Your task to perform on an android device: Turn off the flashlight Image 0: 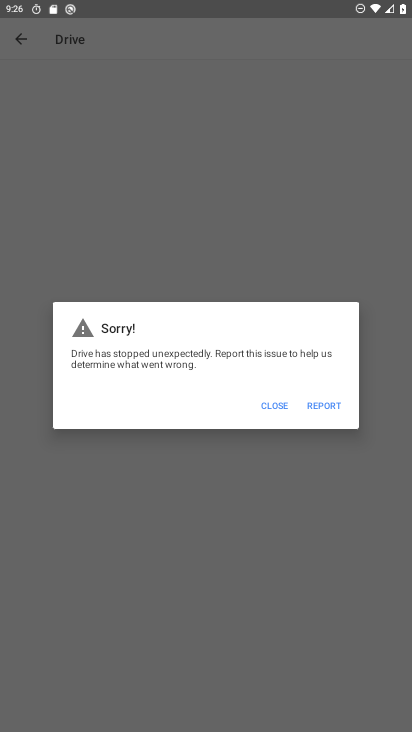
Step 0: press home button
Your task to perform on an android device: Turn off the flashlight Image 1: 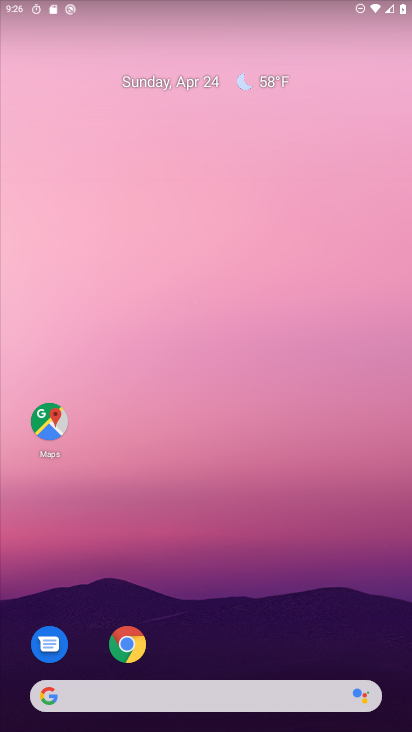
Step 1: drag from (239, 653) to (258, 113)
Your task to perform on an android device: Turn off the flashlight Image 2: 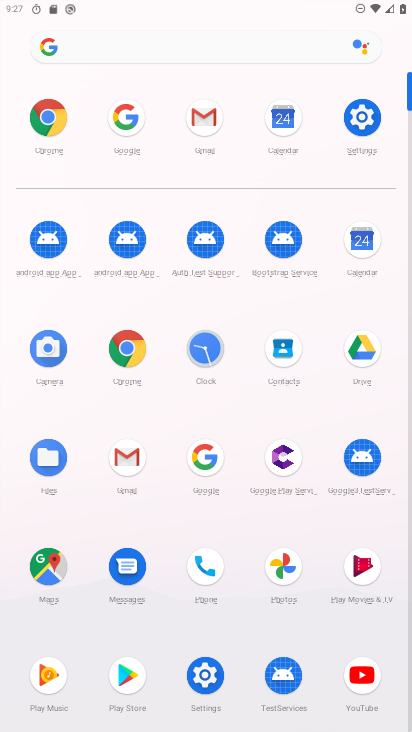
Step 2: drag from (220, 11) to (220, 608)
Your task to perform on an android device: Turn off the flashlight Image 3: 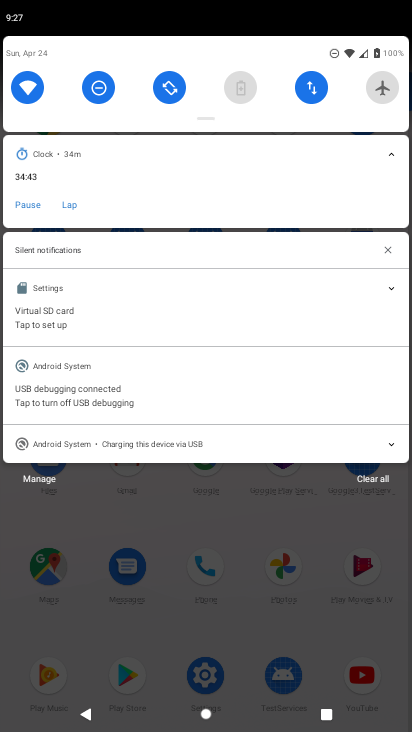
Step 3: click (226, 555)
Your task to perform on an android device: Turn off the flashlight Image 4: 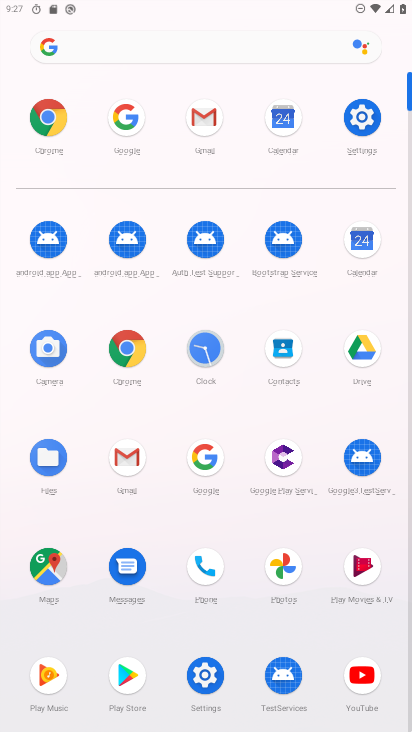
Step 4: click (363, 110)
Your task to perform on an android device: Turn off the flashlight Image 5: 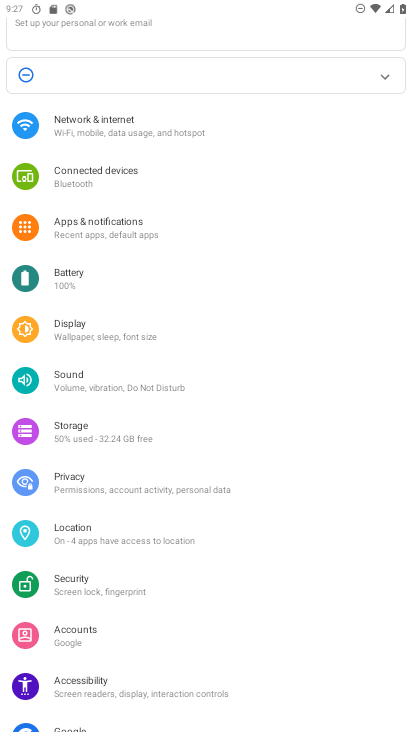
Step 5: drag from (93, 229) to (129, 573)
Your task to perform on an android device: Turn off the flashlight Image 6: 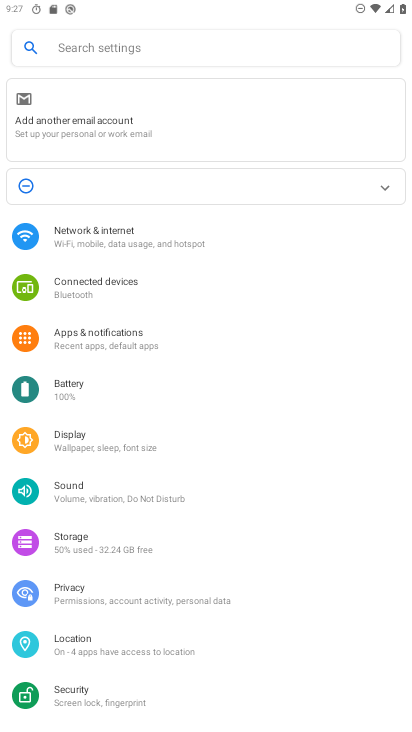
Step 6: click (120, 40)
Your task to perform on an android device: Turn off the flashlight Image 7: 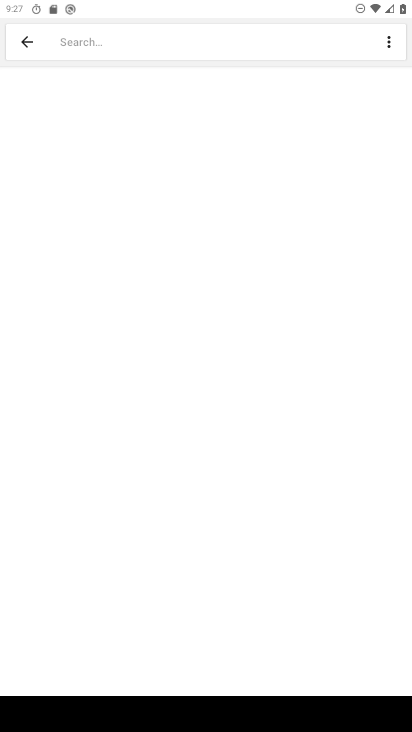
Step 7: type "flashlight"
Your task to perform on an android device: Turn off the flashlight Image 8: 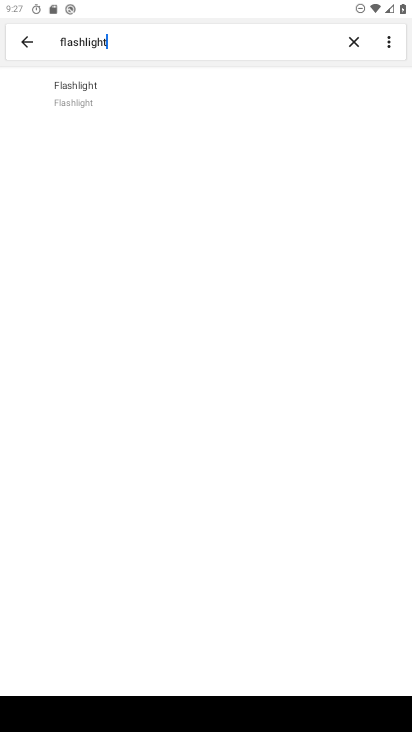
Step 8: click (91, 93)
Your task to perform on an android device: Turn off the flashlight Image 9: 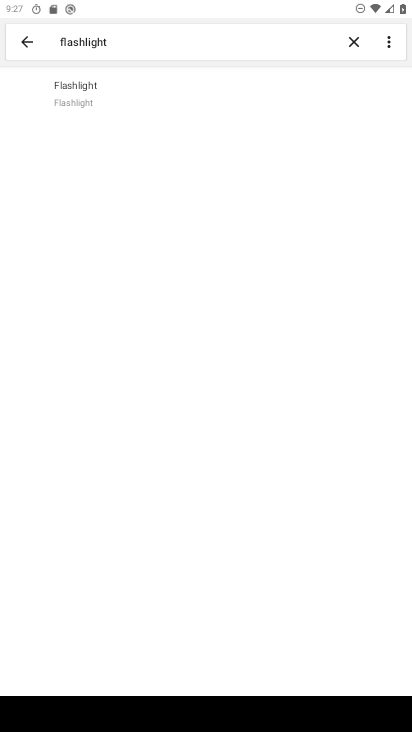
Step 9: click (112, 96)
Your task to perform on an android device: Turn off the flashlight Image 10: 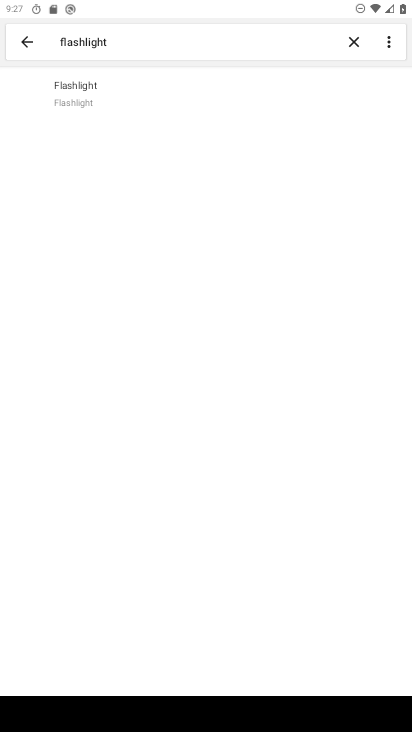
Step 10: task complete